Your task to perform on an android device: move a message to another label in the gmail app Image 0: 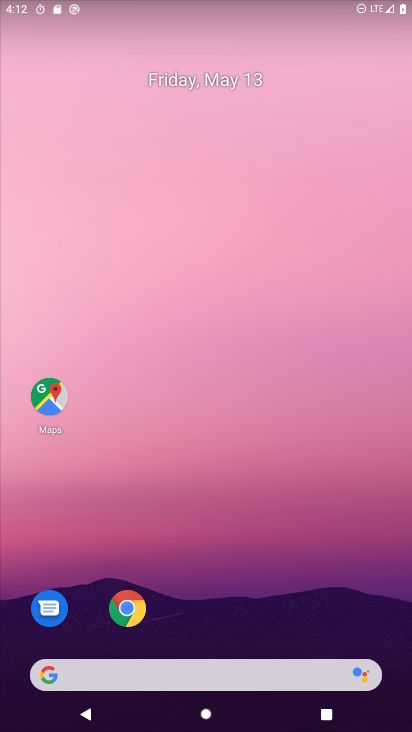
Step 0: drag from (280, 603) to (280, 36)
Your task to perform on an android device: move a message to another label in the gmail app Image 1: 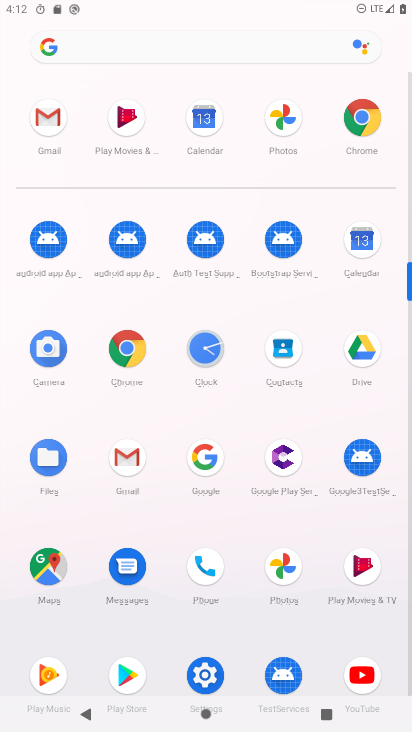
Step 1: click (280, 36)
Your task to perform on an android device: move a message to another label in the gmail app Image 2: 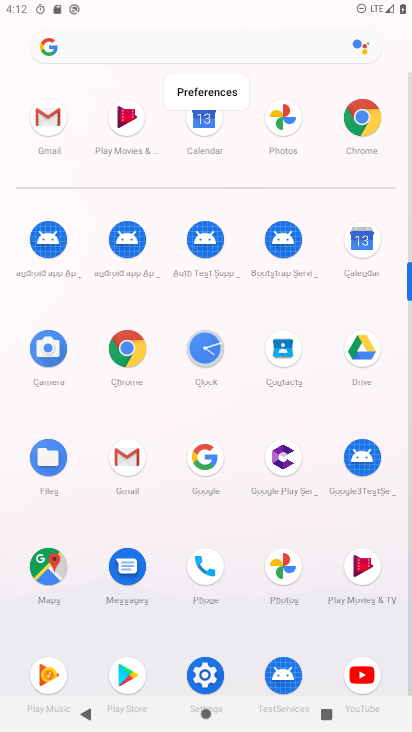
Step 2: click (141, 460)
Your task to perform on an android device: move a message to another label in the gmail app Image 3: 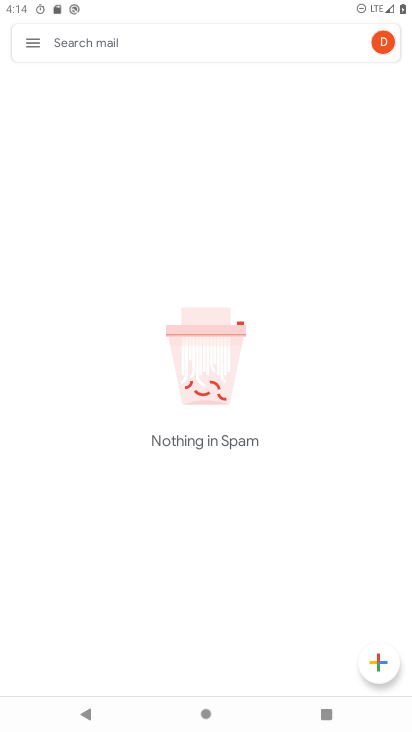
Step 3: task complete